Your task to perform on an android device: toggle priority inbox in the gmail app Image 0: 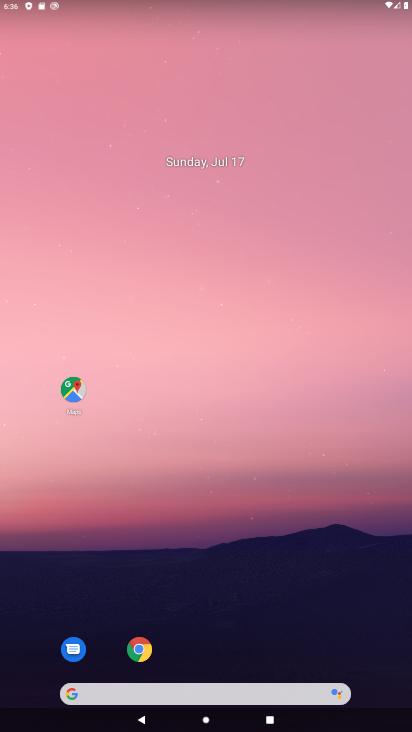
Step 0: drag from (237, 596) to (200, 143)
Your task to perform on an android device: toggle priority inbox in the gmail app Image 1: 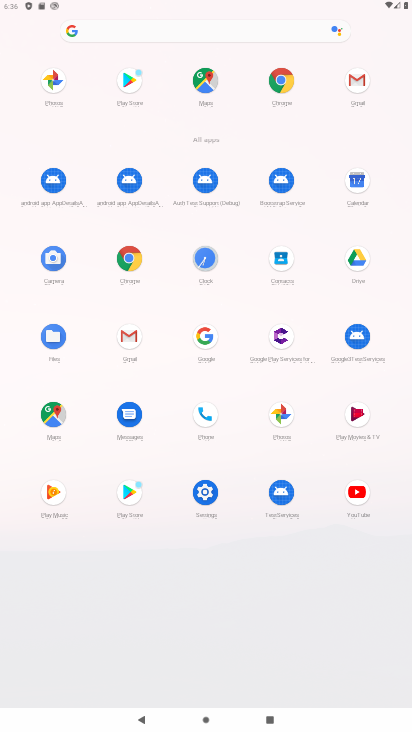
Step 1: click (357, 79)
Your task to perform on an android device: toggle priority inbox in the gmail app Image 2: 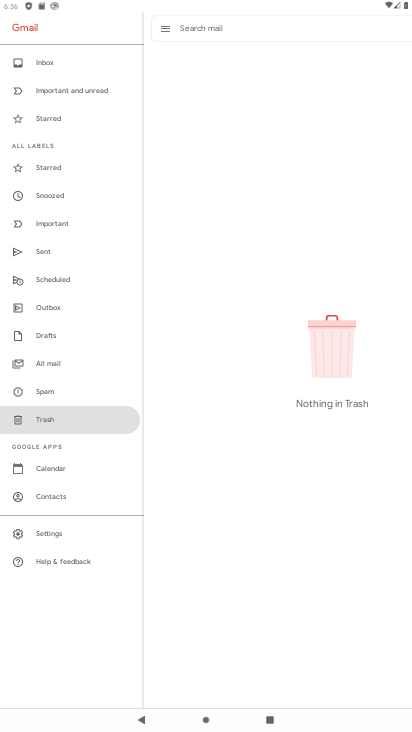
Step 2: click (42, 536)
Your task to perform on an android device: toggle priority inbox in the gmail app Image 3: 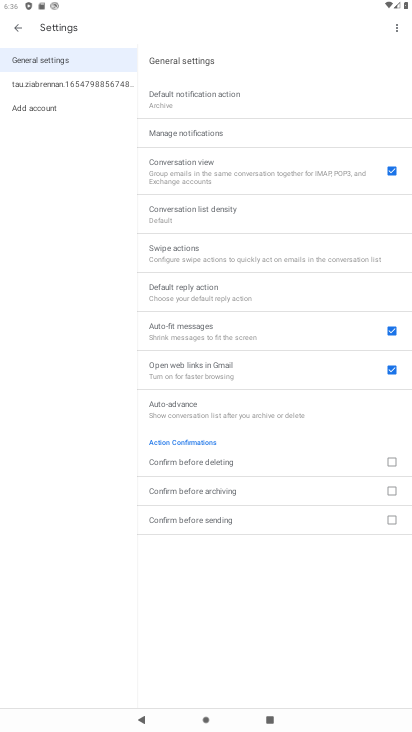
Step 3: click (84, 81)
Your task to perform on an android device: toggle priority inbox in the gmail app Image 4: 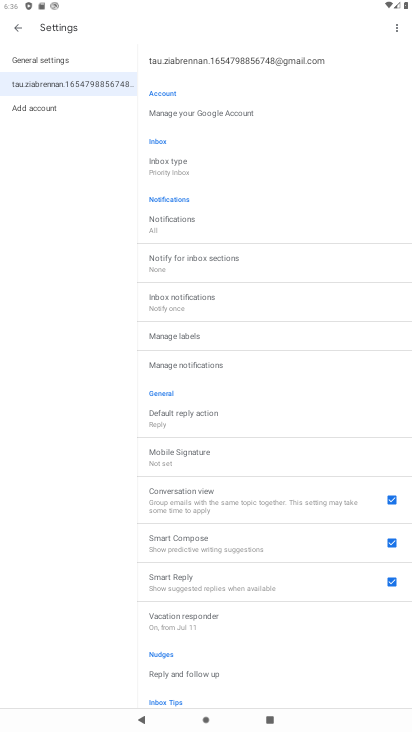
Step 4: click (169, 162)
Your task to perform on an android device: toggle priority inbox in the gmail app Image 5: 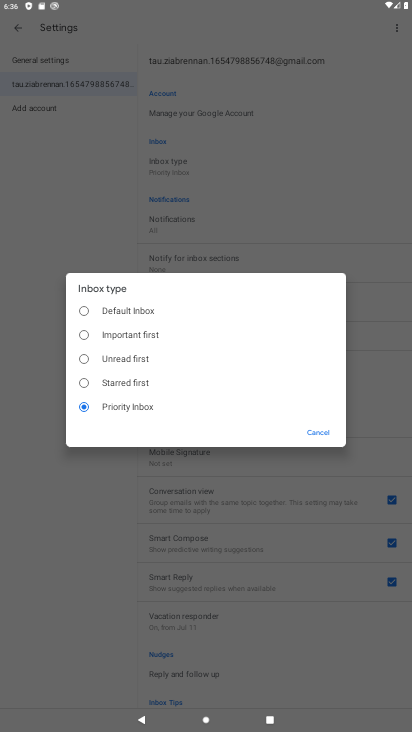
Step 5: click (84, 307)
Your task to perform on an android device: toggle priority inbox in the gmail app Image 6: 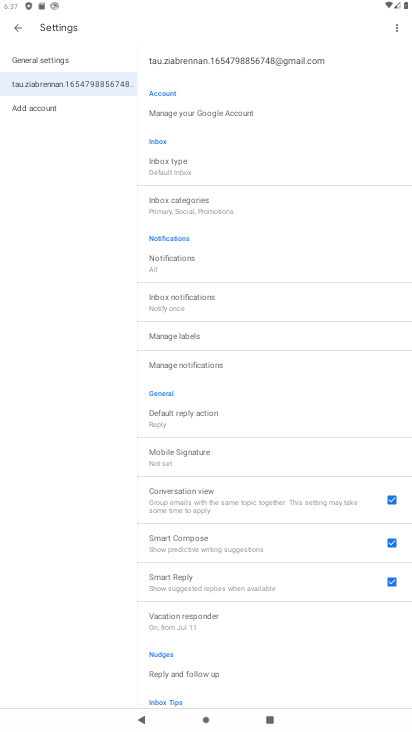
Step 6: task complete